Your task to perform on an android device: turn off priority inbox in the gmail app Image 0: 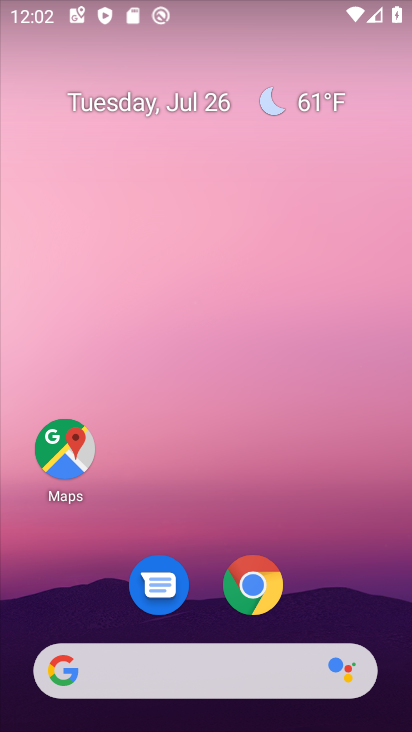
Step 0: drag from (322, 565) to (356, 0)
Your task to perform on an android device: turn off priority inbox in the gmail app Image 1: 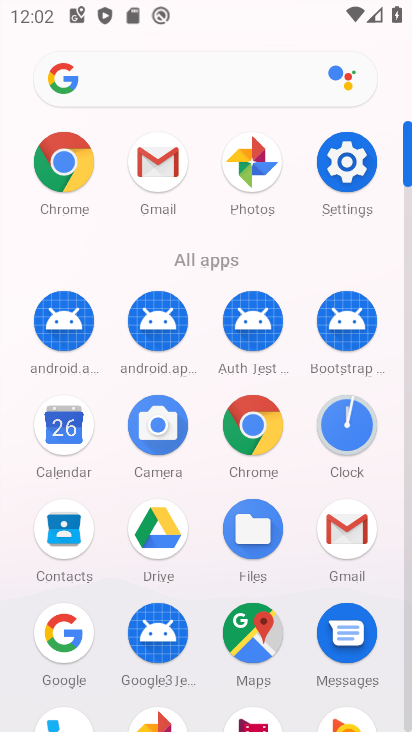
Step 1: click (155, 161)
Your task to perform on an android device: turn off priority inbox in the gmail app Image 2: 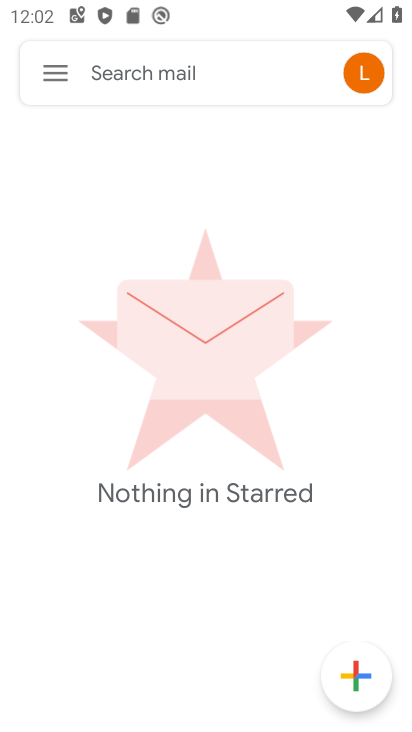
Step 2: click (51, 77)
Your task to perform on an android device: turn off priority inbox in the gmail app Image 3: 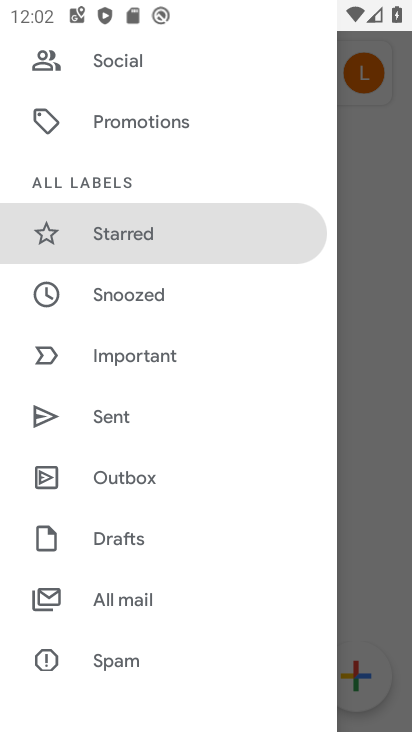
Step 3: drag from (178, 568) to (243, 0)
Your task to perform on an android device: turn off priority inbox in the gmail app Image 4: 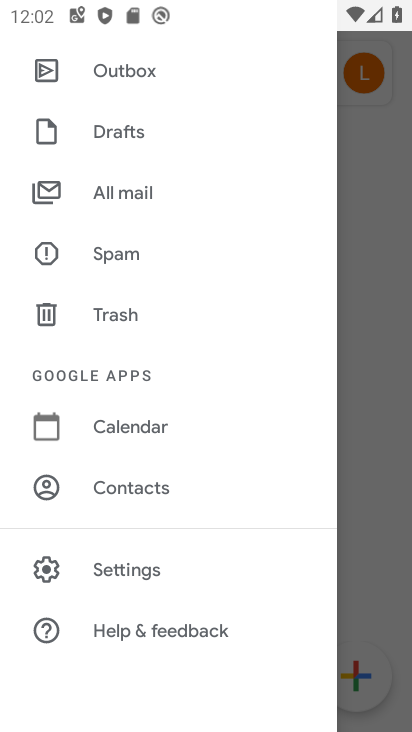
Step 4: click (145, 561)
Your task to perform on an android device: turn off priority inbox in the gmail app Image 5: 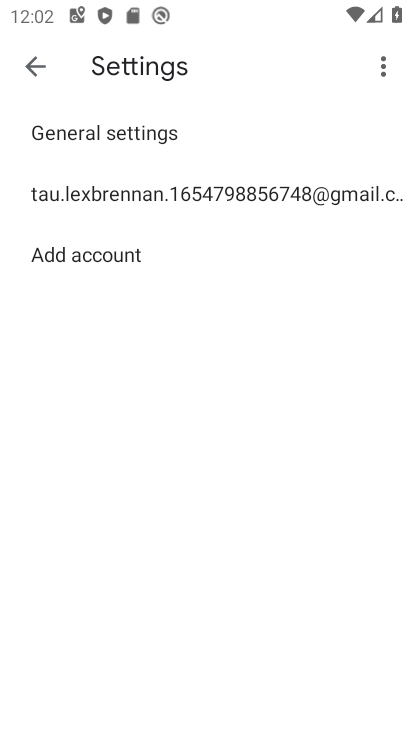
Step 5: click (228, 188)
Your task to perform on an android device: turn off priority inbox in the gmail app Image 6: 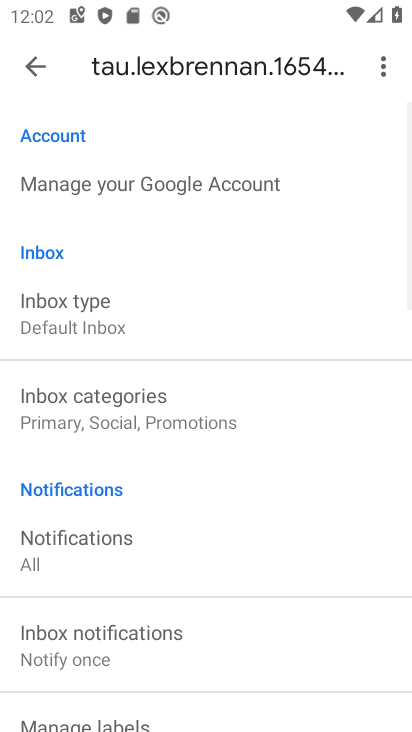
Step 6: click (88, 313)
Your task to perform on an android device: turn off priority inbox in the gmail app Image 7: 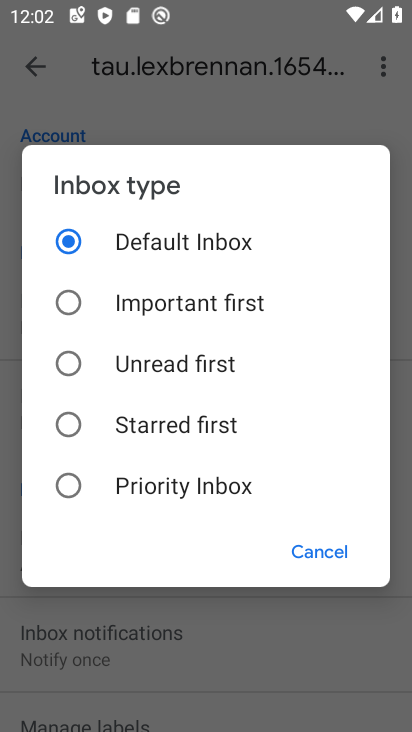
Step 7: click (118, 485)
Your task to perform on an android device: turn off priority inbox in the gmail app Image 8: 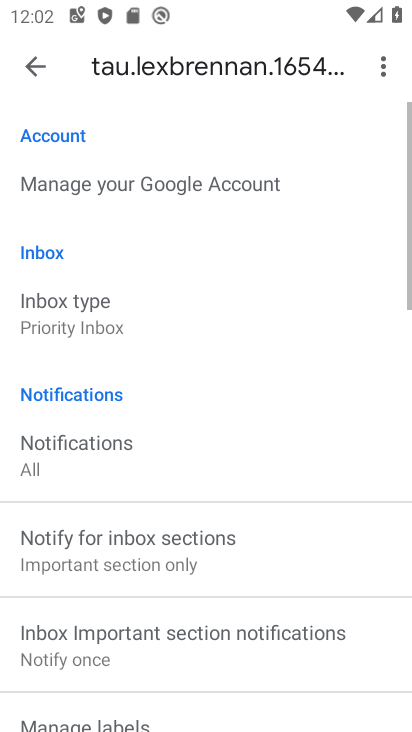
Step 8: task complete